Your task to perform on an android device: Open Google Maps and go to "Timeline" Image 0: 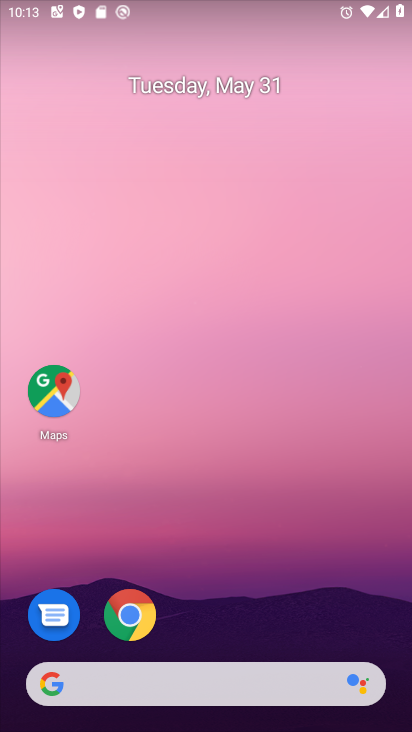
Step 0: drag from (304, 585) to (401, 396)
Your task to perform on an android device: Open Google Maps and go to "Timeline" Image 1: 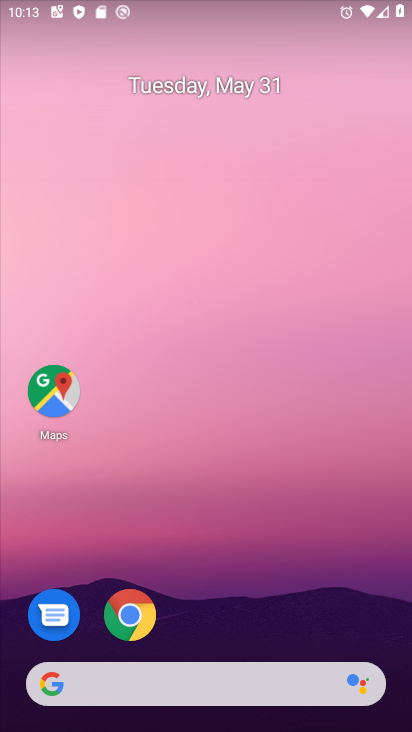
Step 1: drag from (277, 555) to (310, 36)
Your task to perform on an android device: Open Google Maps and go to "Timeline" Image 2: 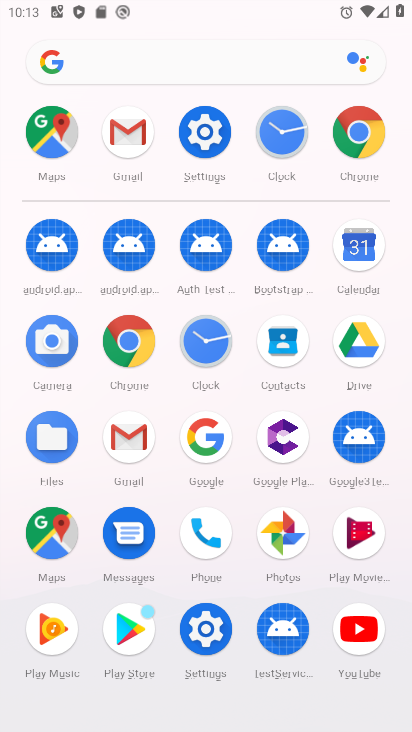
Step 2: click (50, 123)
Your task to perform on an android device: Open Google Maps and go to "Timeline" Image 3: 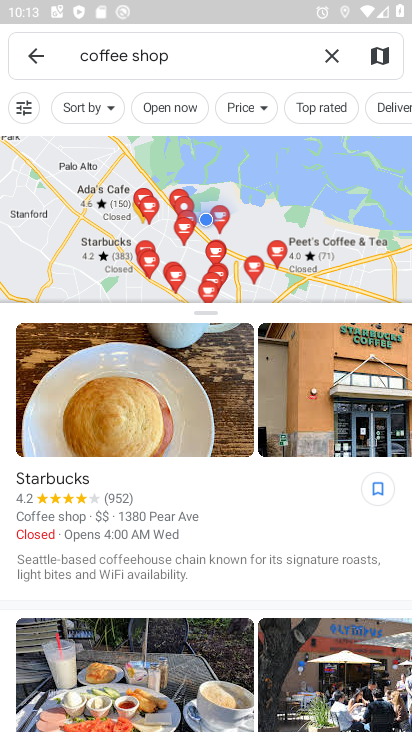
Step 3: click (22, 55)
Your task to perform on an android device: Open Google Maps and go to "Timeline" Image 4: 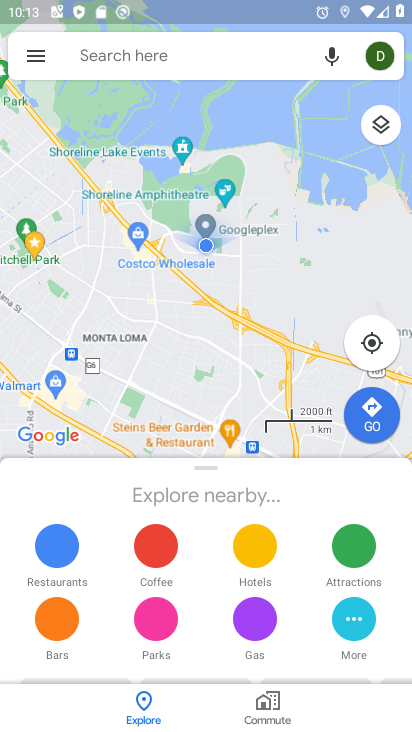
Step 4: click (44, 64)
Your task to perform on an android device: Open Google Maps and go to "Timeline" Image 5: 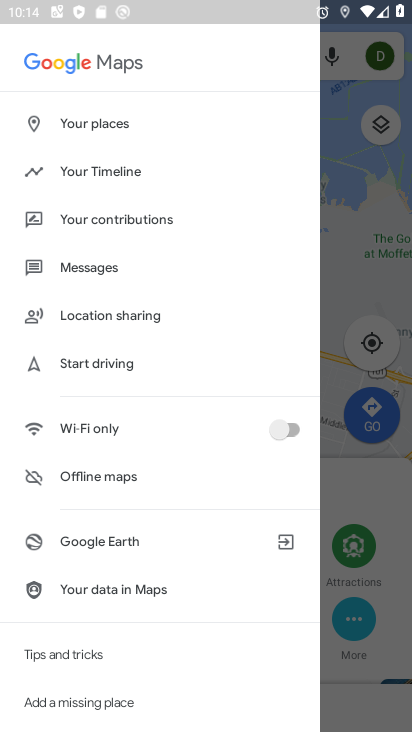
Step 5: click (63, 181)
Your task to perform on an android device: Open Google Maps and go to "Timeline" Image 6: 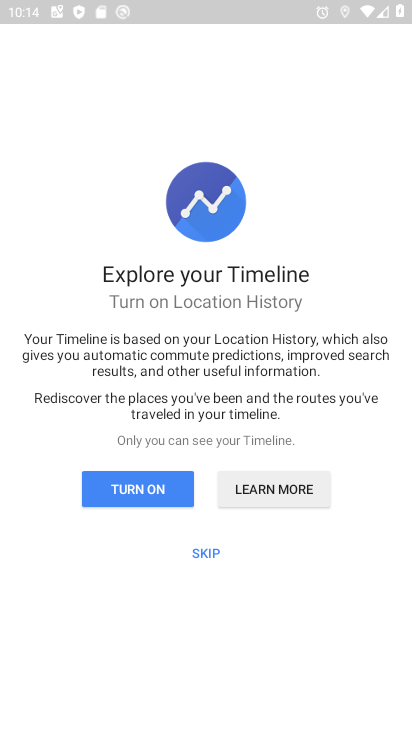
Step 6: task complete